Your task to perform on an android device: Is it going to rain tomorrow? Image 0: 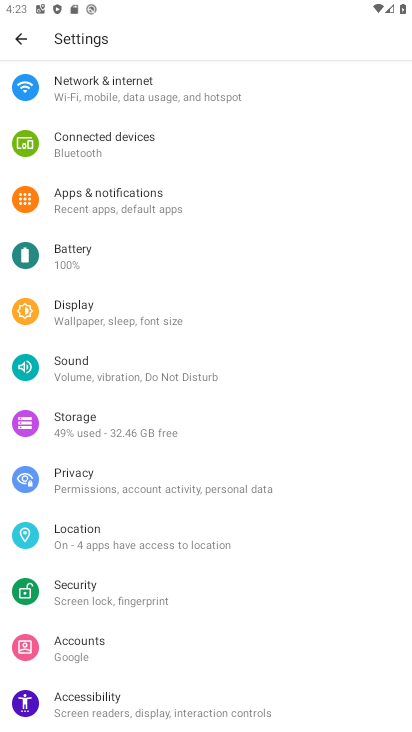
Step 0: press home button
Your task to perform on an android device: Is it going to rain tomorrow? Image 1: 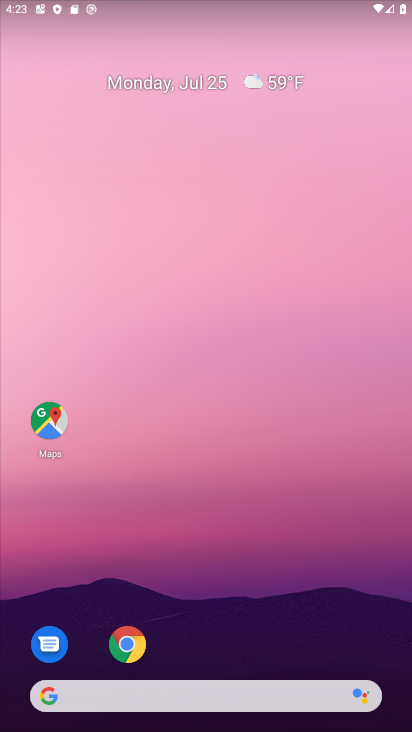
Step 1: drag from (185, 675) to (182, 242)
Your task to perform on an android device: Is it going to rain tomorrow? Image 2: 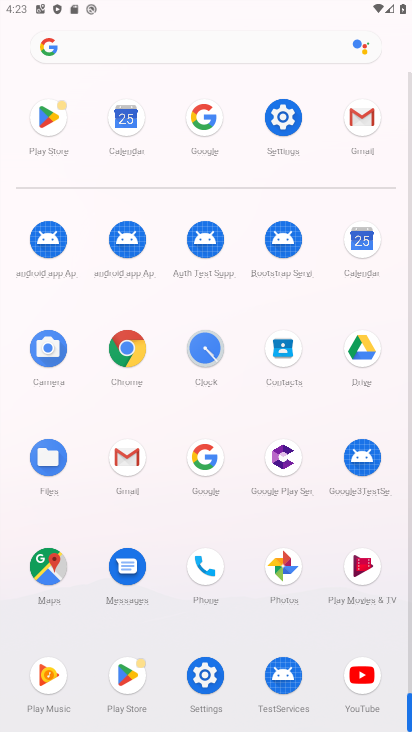
Step 2: click (208, 120)
Your task to perform on an android device: Is it going to rain tomorrow? Image 3: 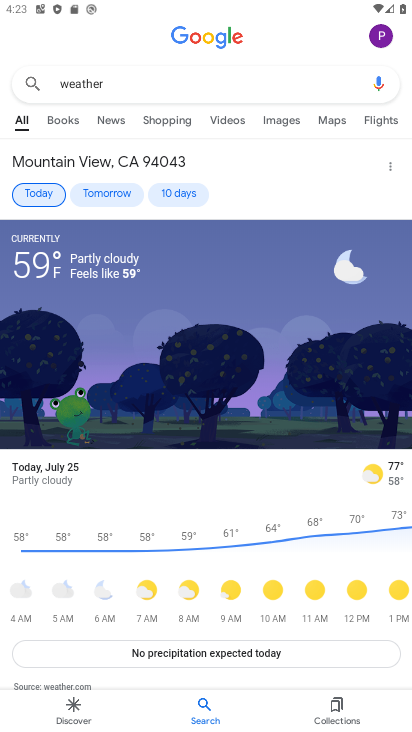
Step 3: click (116, 87)
Your task to perform on an android device: Is it going to rain tomorrow? Image 4: 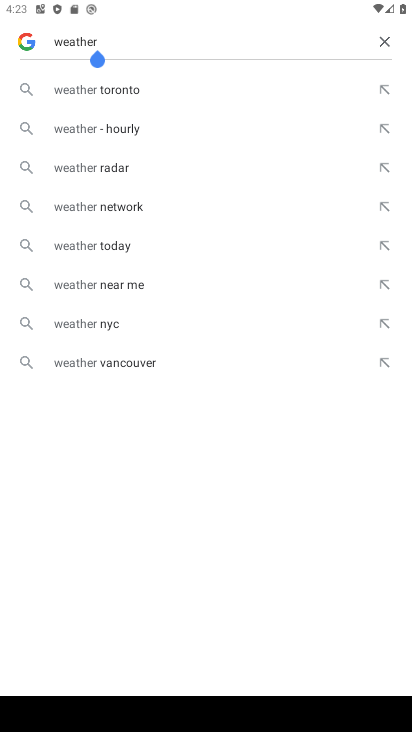
Step 4: click (382, 47)
Your task to perform on an android device: Is it going to rain tomorrow? Image 5: 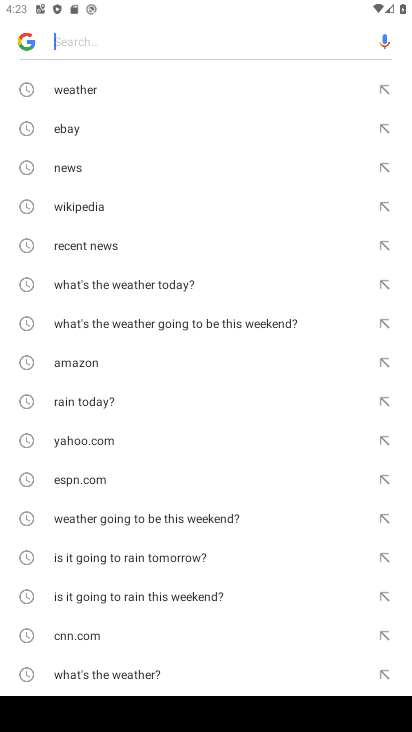
Step 5: click (93, 557)
Your task to perform on an android device: Is it going to rain tomorrow? Image 6: 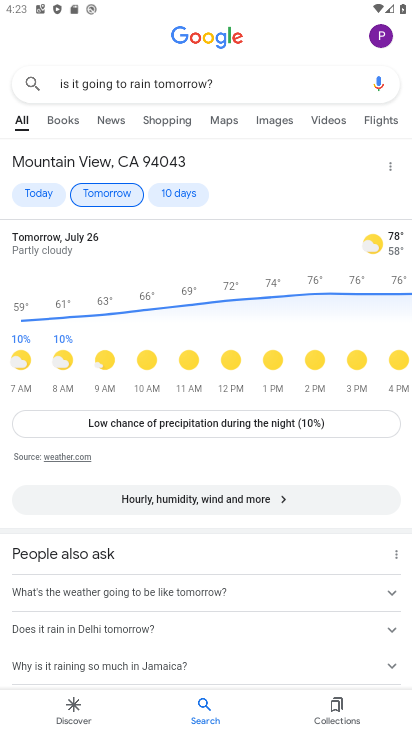
Step 6: task complete